Your task to perform on an android device: change keyboard looks Image 0: 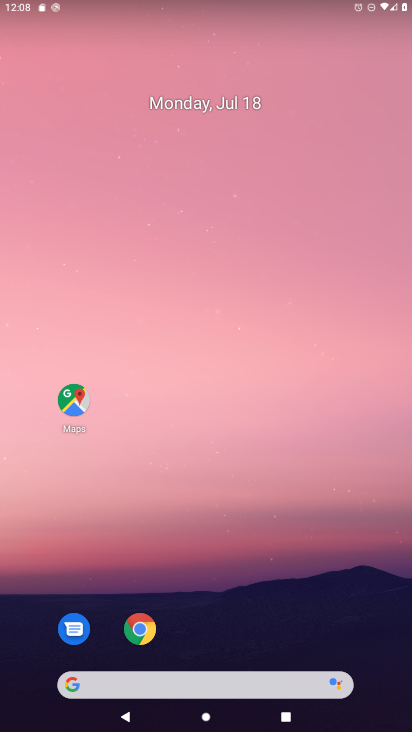
Step 0: drag from (233, 687) to (328, 49)
Your task to perform on an android device: change keyboard looks Image 1: 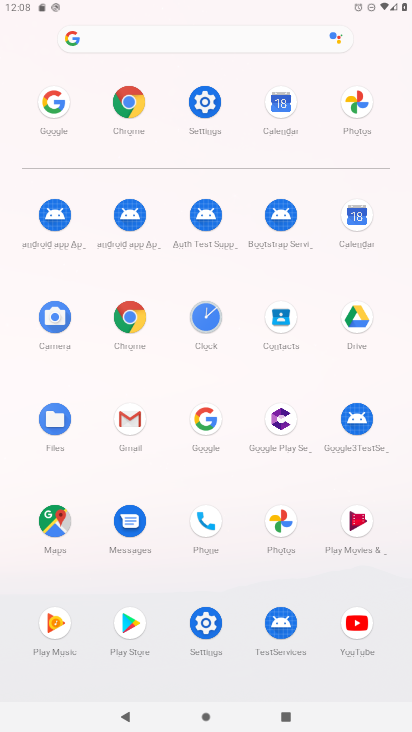
Step 1: click (205, 104)
Your task to perform on an android device: change keyboard looks Image 2: 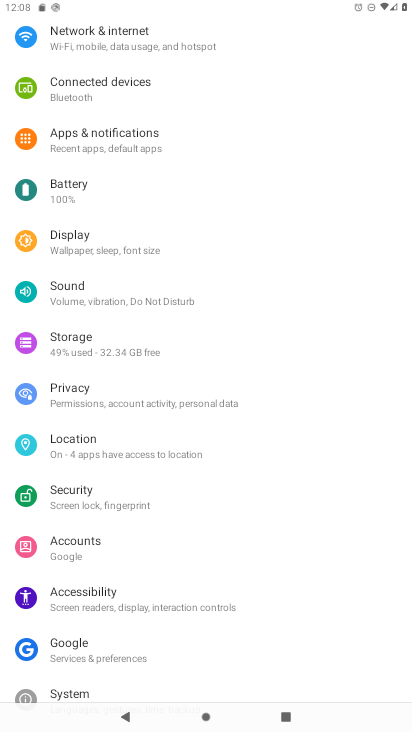
Step 2: drag from (158, 508) to (186, 437)
Your task to perform on an android device: change keyboard looks Image 3: 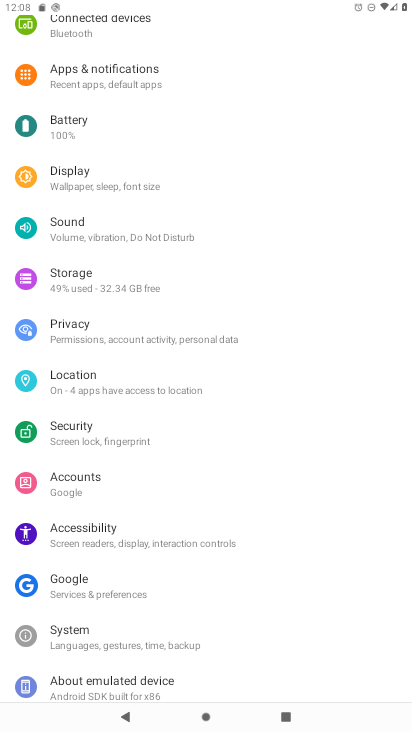
Step 3: drag from (174, 488) to (211, 411)
Your task to perform on an android device: change keyboard looks Image 4: 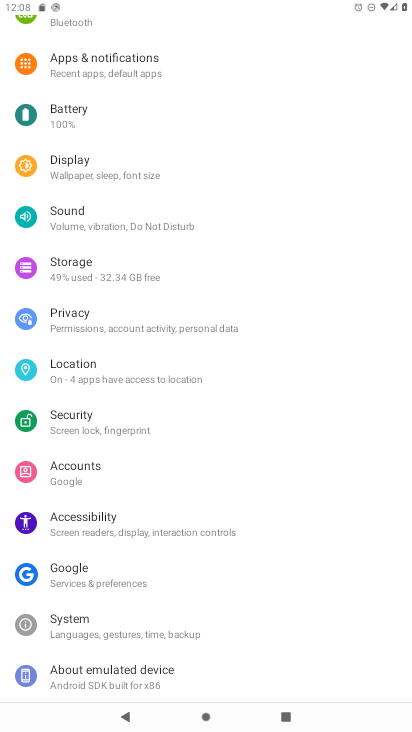
Step 4: click (67, 637)
Your task to perform on an android device: change keyboard looks Image 5: 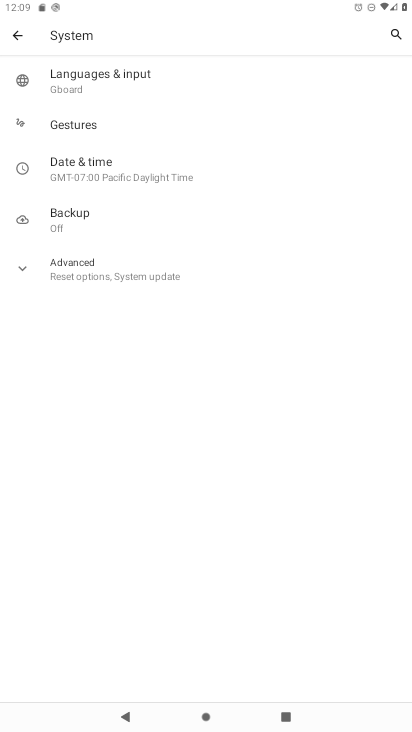
Step 5: click (90, 93)
Your task to perform on an android device: change keyboard looks Image 6: 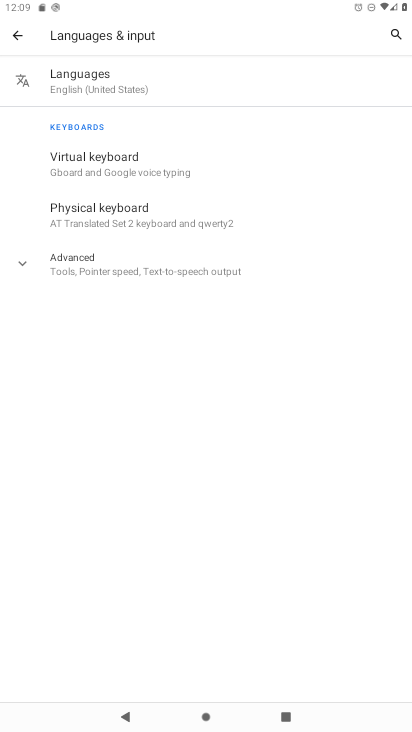
Step 6: click (141, 171)
Your task to perform on an android device: change keyboard looks Image 7: 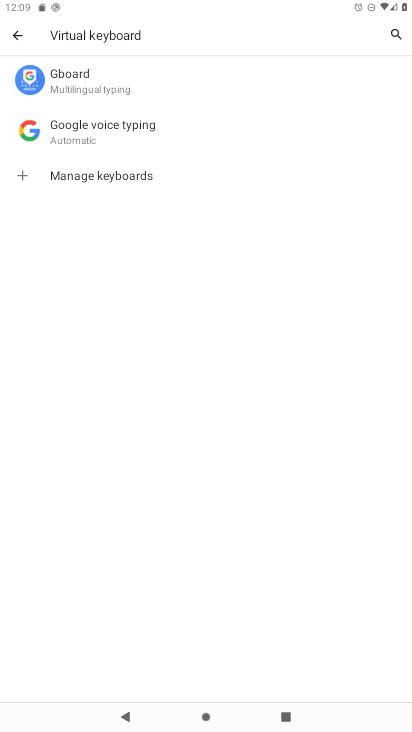
Step 7: click (81, 83)
Your task to perform on an android device: change keyboard looks Image 8: 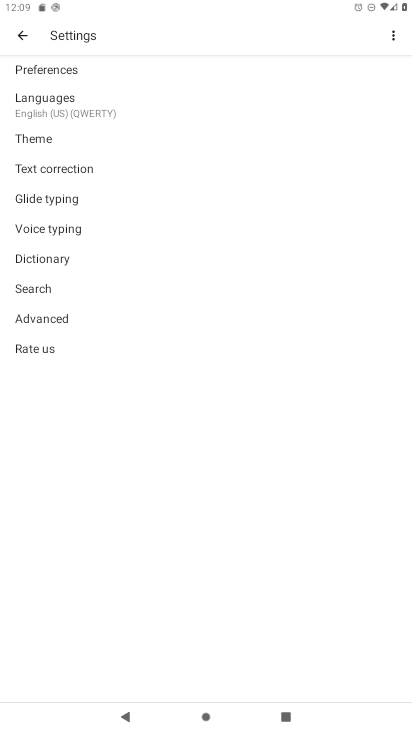
Step 8: click (34, 137)
Your task to perform on an android device: change keyboard looks Image 9: 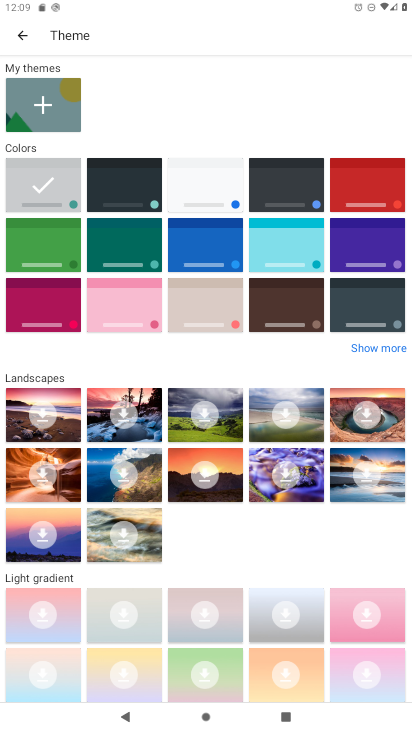
Step 9: click (266, 312)
Your task to perform on an android device: change keyboard looks Image 10: 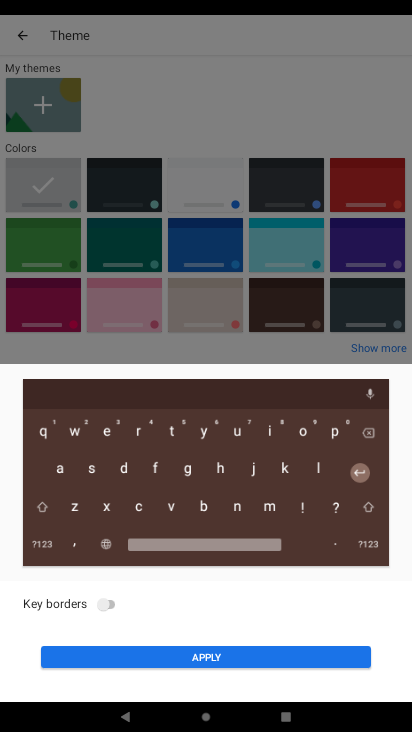
Step 10: click (102, 605)
Your task to perform on an android device: change keyboard looks Image 11: 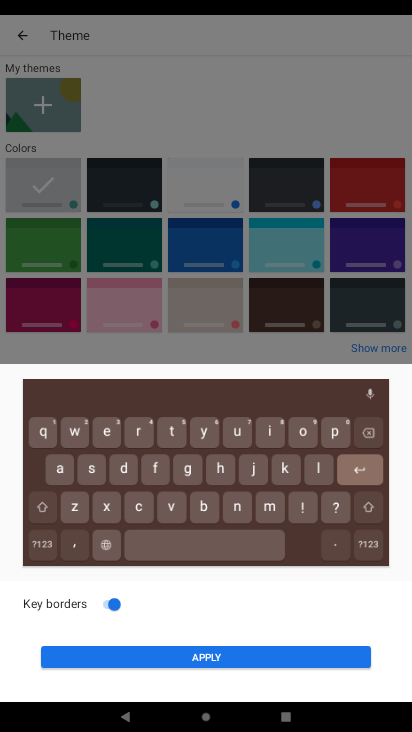
Step 11: click (212, 663)
Your task to perform on an android device: change keyboard looks Image 12: 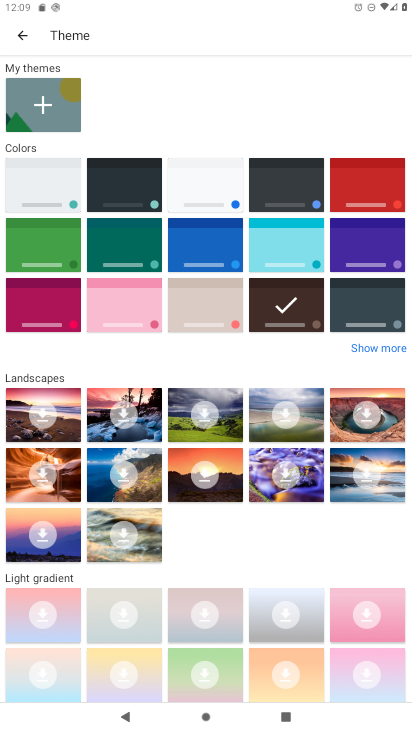
Step 12: task complete